Your task to perform on an android device: Open the calendar and show me this week's events? Image 0: 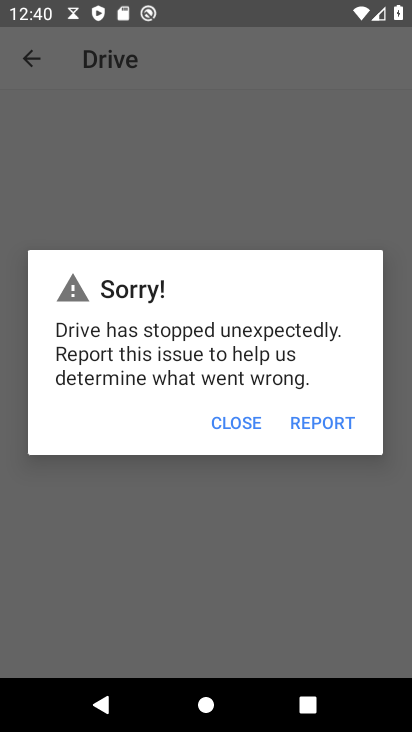
Step 0: click (227, 423)
Your task to perform on an android device: Open the calendar and show me this week's events? Image 1: 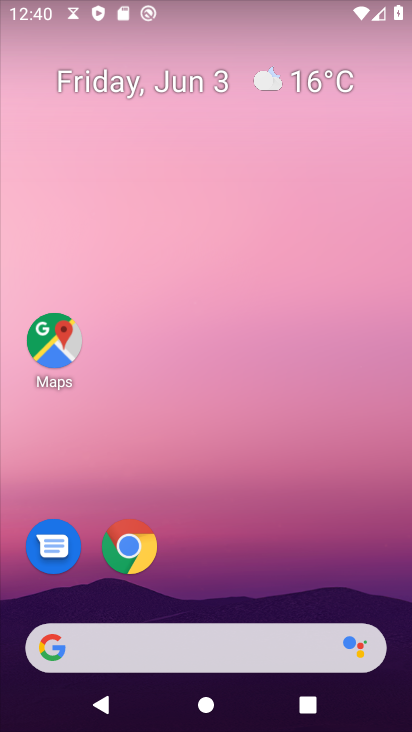
Step 1: drag from (196, 498) to (233, 76)
Your task to perform on an android device: Open the calendar and show me this week's events? Image 2: 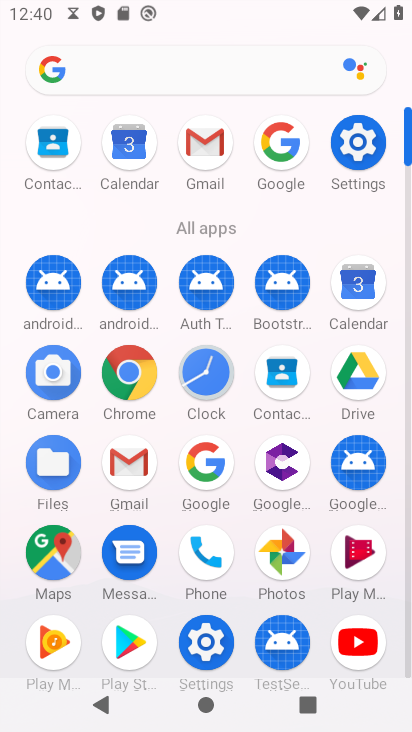
Step 2: click (360, 295)
Your task to perform on an android device: Open the calendar and show me this week's events? Image 3: 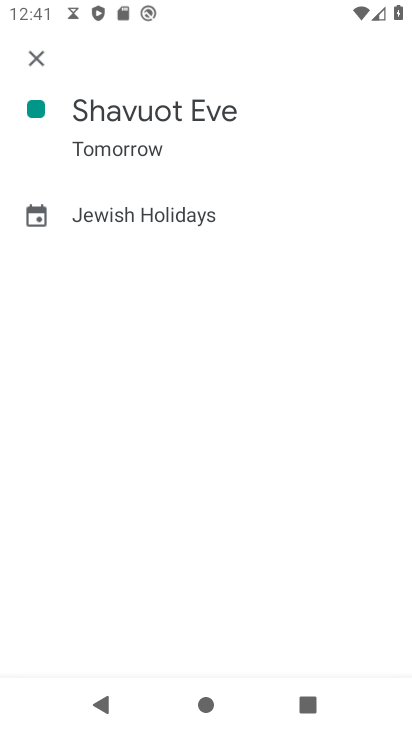
Step 3: click (42, 53)
Your task to perform on an android device: Open the calendar and show me this week's events? Image 4: 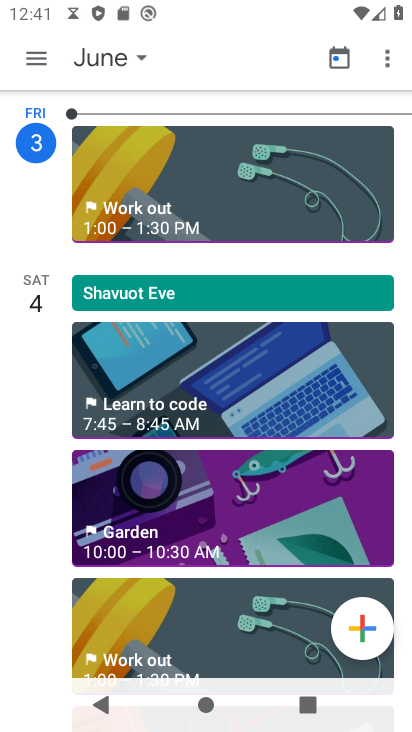
Step 4: click (151, 521)
Your task to perform on an android device: Open the calendar and show me this week's events? Image 5: 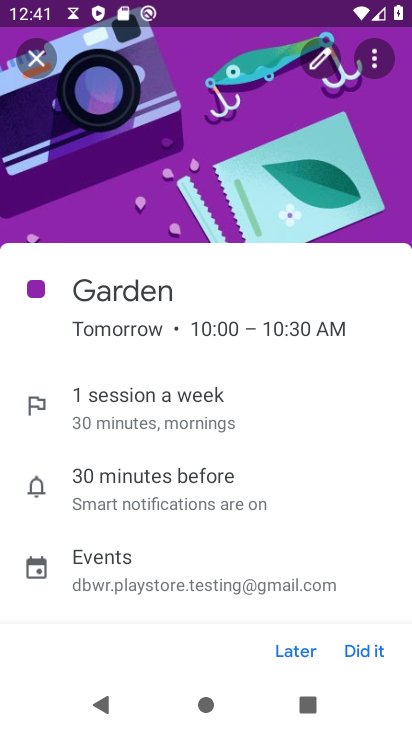
Step 5: task complete